Your task to perform on an android device: turn on airplane mode Image 0: 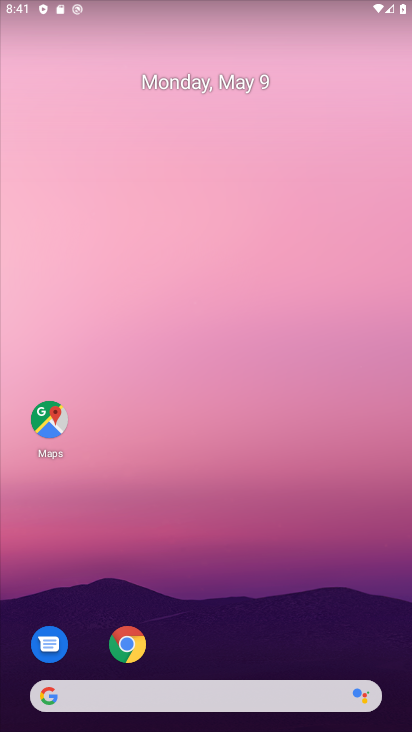
Step 0: drag from (252, 566) to (269, 87)
Your task to perform on an android device: turn on airplane mode Image 1: 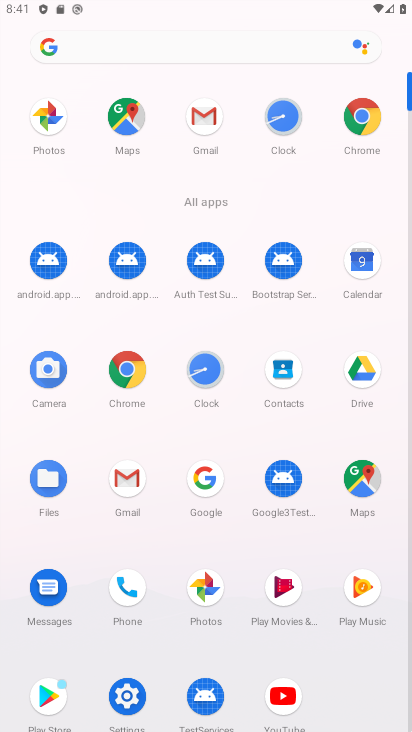
Step 1: click (132, 685)
Your task to perform on an android device: turn on airplane mode Image 2: 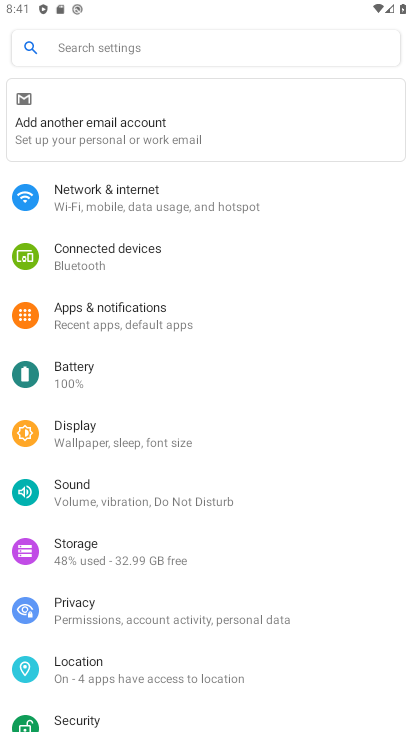
Step 2: click (219, 195)
Your task to perform on an android device: turn on airplane mode Image 3: 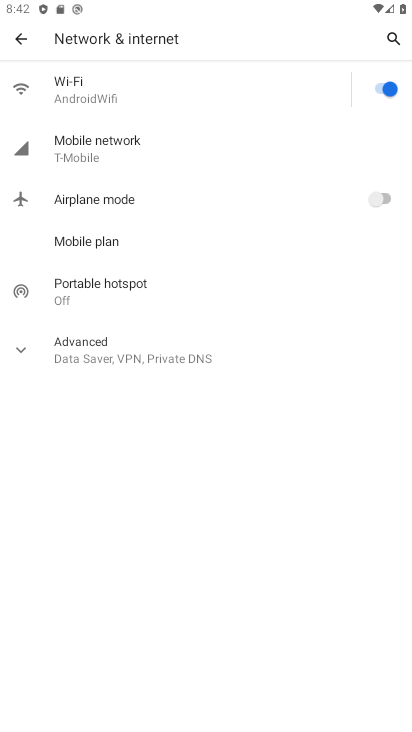
Step 3: click (387, 195)
Your task to perform on an android device: turn on airplane mode Image 4: 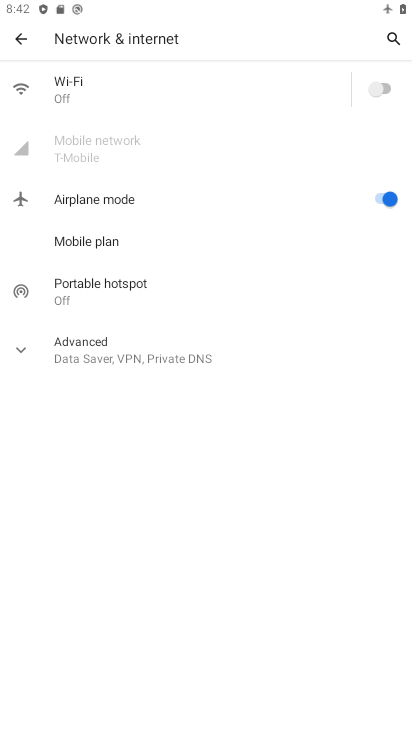
Step 4: task complete